Your task to perform on an android device: Go to CNN.com Image 0: 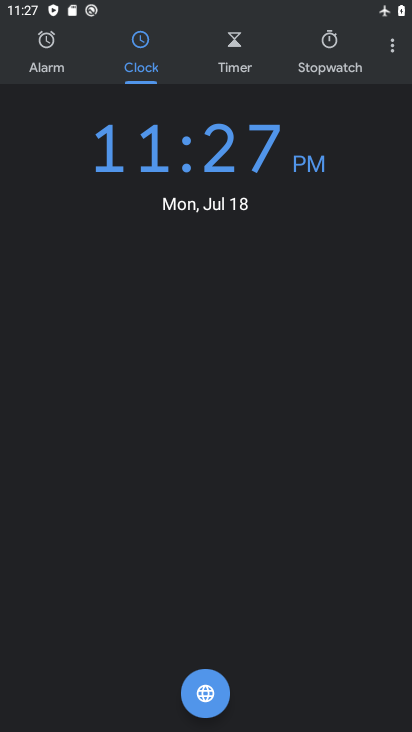
Step 0: press home button
Your task to perform on an android device: Go to CNN.com Image 1: 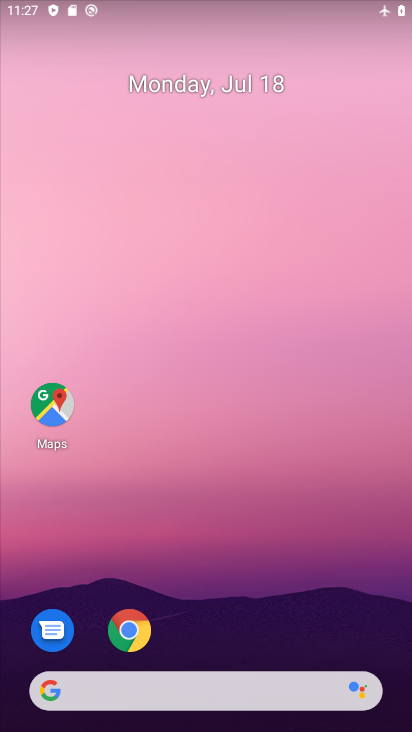
Step 1: click (128, 638)
Your task to perform on an android device: Go to CNN.com Image 2: 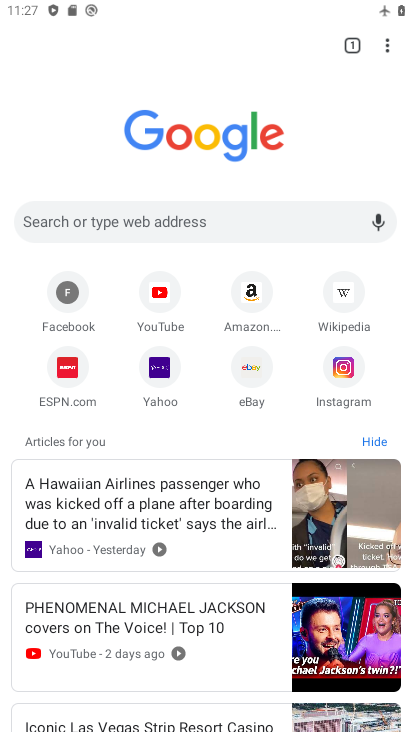
Step 2: click (186, 225)
Your task to perform on an android device: Go to CNN.com Image 3: 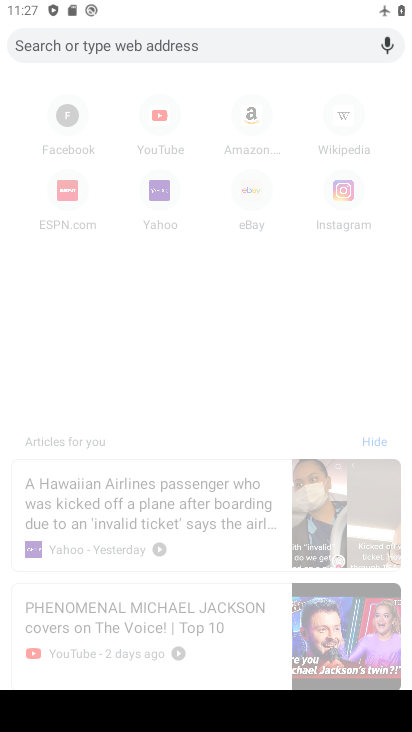
Step 3: type "CNN.com"
Your task to perform on an android device: Go to CNN.com Image 4: 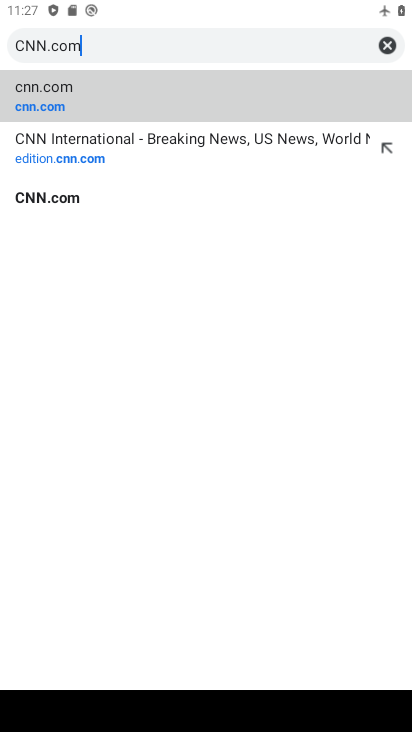
Step 4: click (62, 94)
Your task to perform on an android device: Go to CNN.com Image 5: 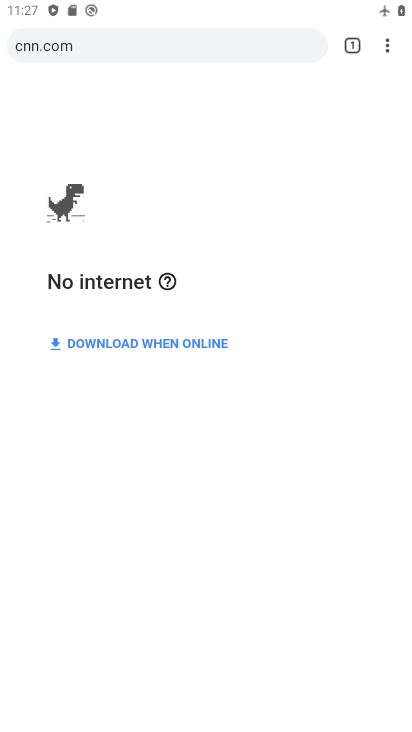
Step 5: task complete